Your task to perform on an android device: toggle notification dots Image 0: 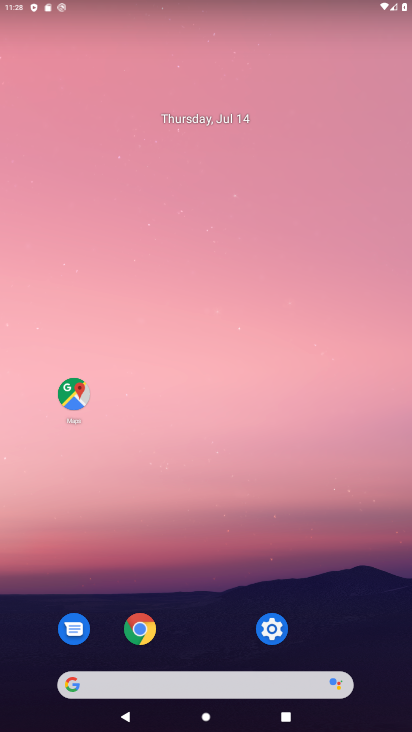
Step 0: press home button
Your task to perform on an android device: toggle notification dots Image 1: 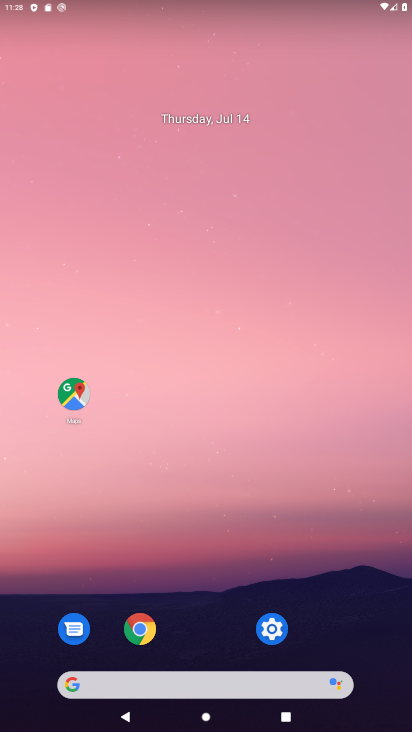
Step 1: click (272, 622)
Your task to perform on an android device: toggle notification dots Image 2: 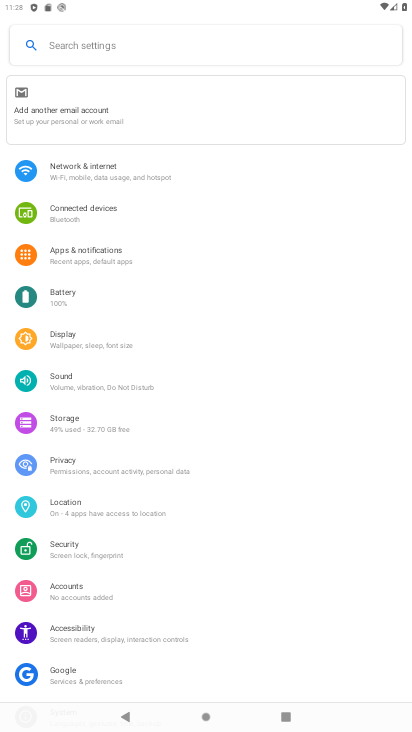
Step 2: click (101, 44)
Your task to perform on an android device: toggle notification dots Image 3: 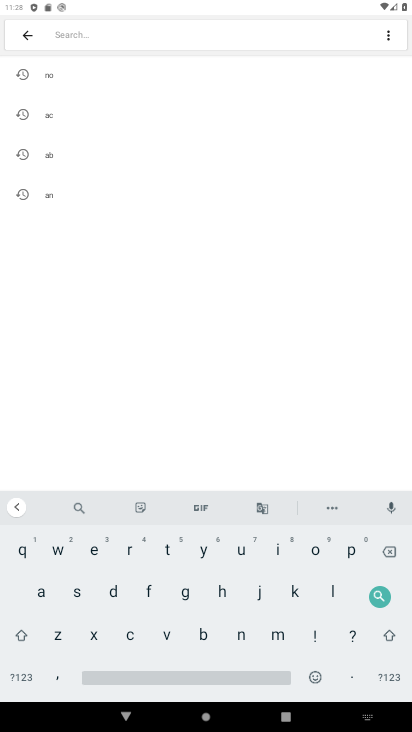
Step 3: click (49, 72)
Your task to perform on an android device: toggle notification dots Image 4: 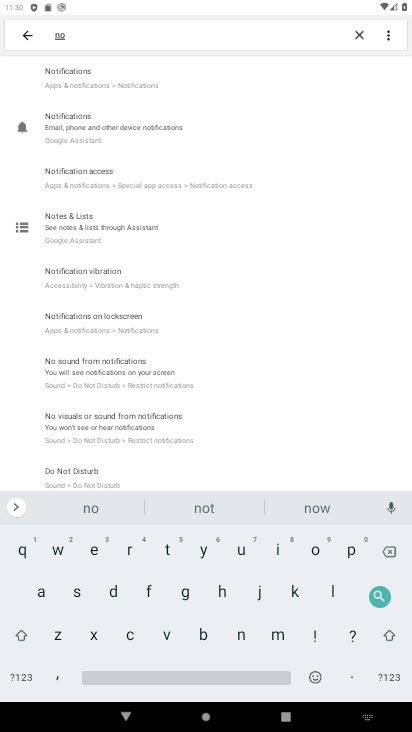
Step 4: task complete